Your task to perform on an android device: check data usage Image 0: 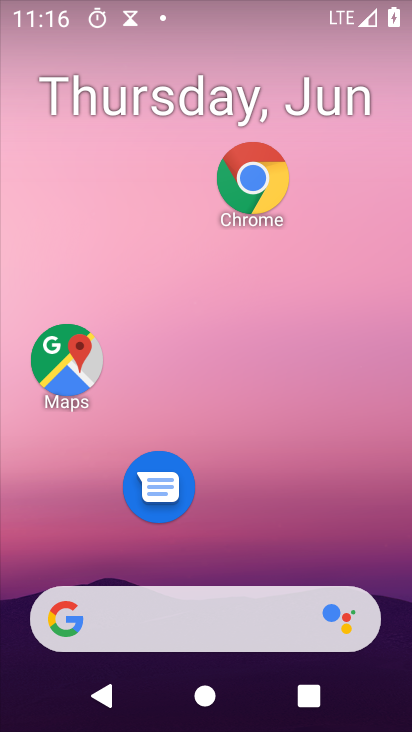
Step 0: drag from (229, 724) to (237, 208)
Your task to perform on an android device: check data usage Image 1: 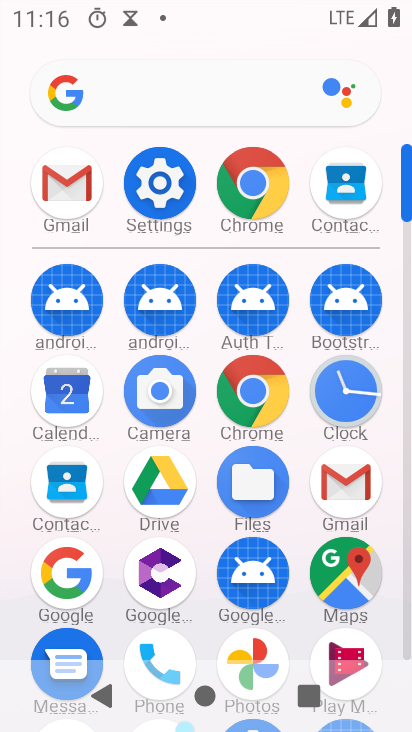
Step 1: click (174, 178)
Your task to perform on an android device: check data usage Image 2: 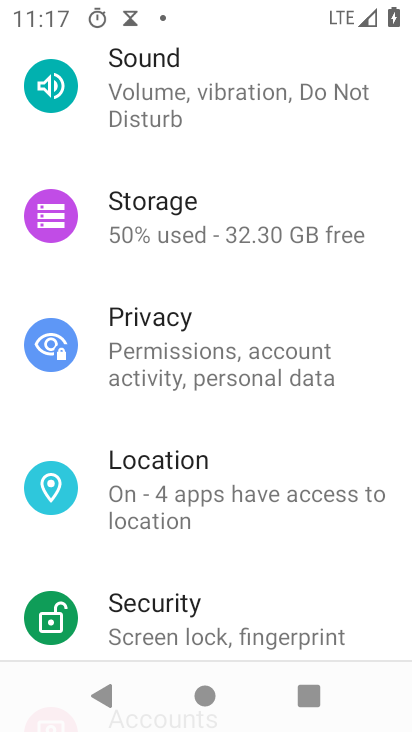
Step 2: drag from (200, 171) to (234, 522)
Your task to perform on an android device: check data usage Image 3: 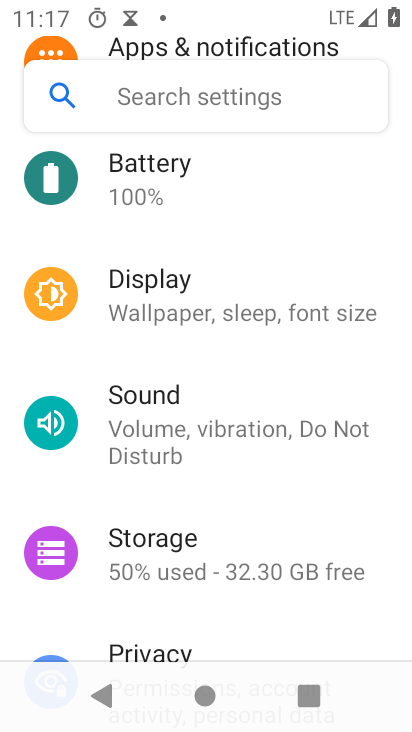
Step 3: drag from (256, 163) to (285, 537)
Your task to perform on an android device: check data usage Image 4: 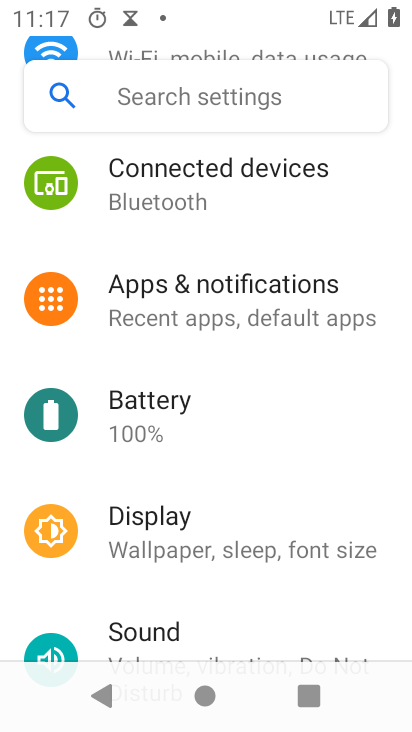
Step 4: drag from (221, 213) to (249, 524)
Your task to perform on an android device: check data usage Image 5: 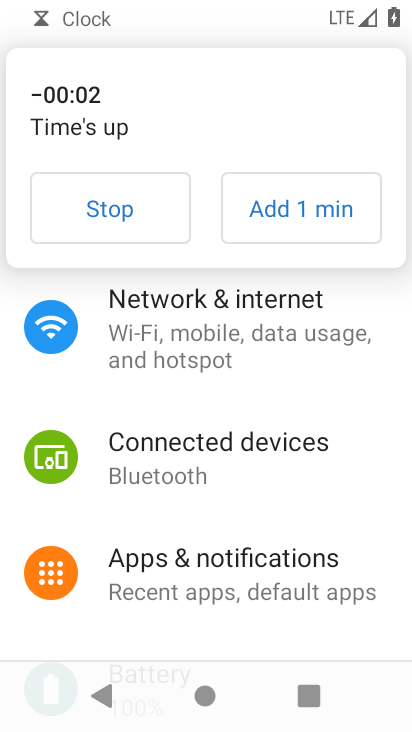
Step 5: click (114, 205)
Your task to perform on an android device: check data usage Image 6: 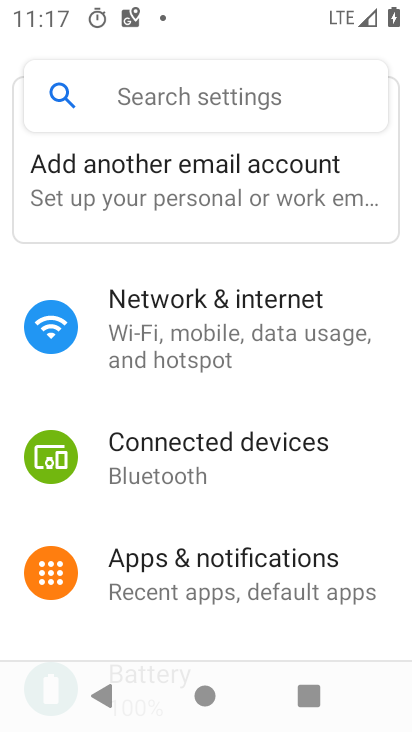
Step 6: click (167, 355)
Your task to perform on an android device: check data usage Image 7: 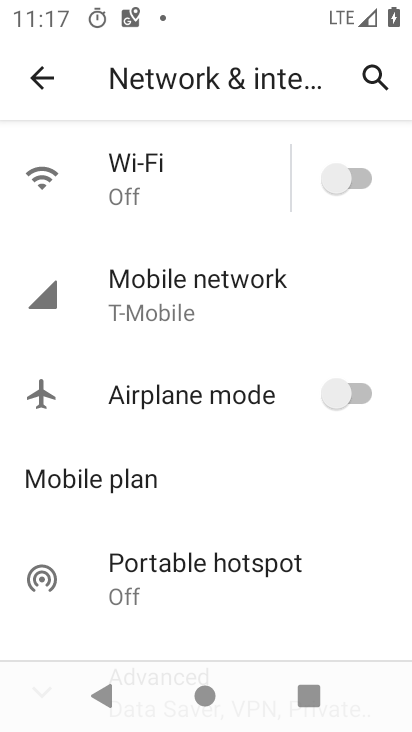
Step 7: click (165, 298)
Your task to perform on an android device: check data usage Image 8: 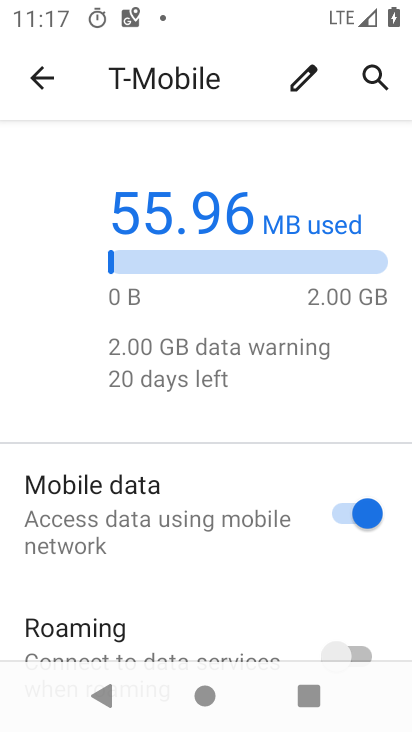
Step 8: drag from (109, 620) to (111, 242)
Your task to perform on an android device: check data usage Image 9: 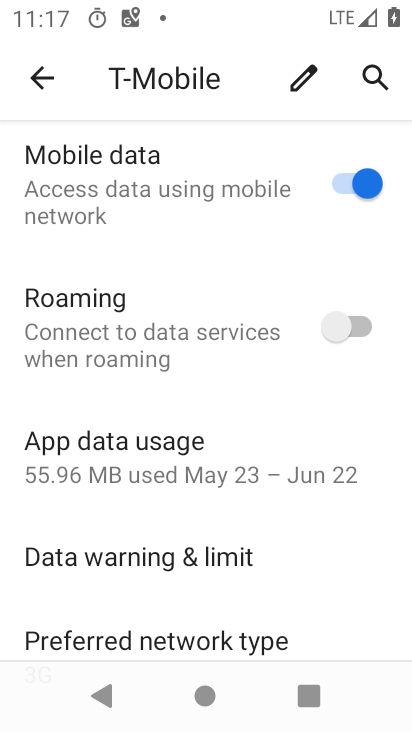
Step 9: click (139, 455)
Your task to perform on an android device: check data usage Image 10: 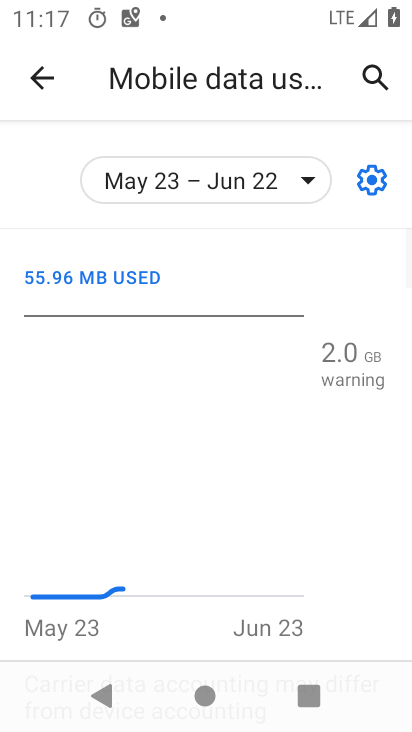
Step 10: task complete